Your task to perform on an android device: clear all cookies in the chrome app Image 0: 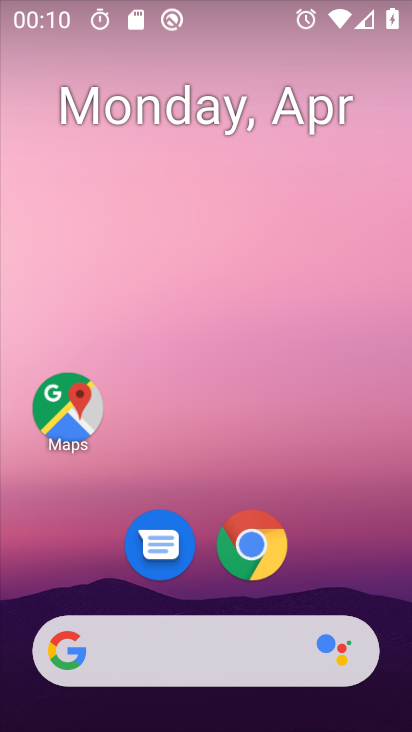
Step 0: drag from (302, 232) to (335, 196)
Your task to perform on an android device: clear all cookies in the chrome app Image 1: 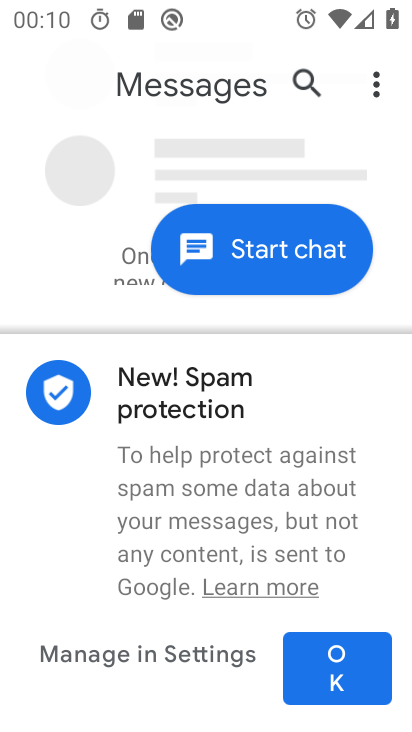
Step 1: press home button
Your task to perform on an android device: clear all cookies in the chrome app Image 2: 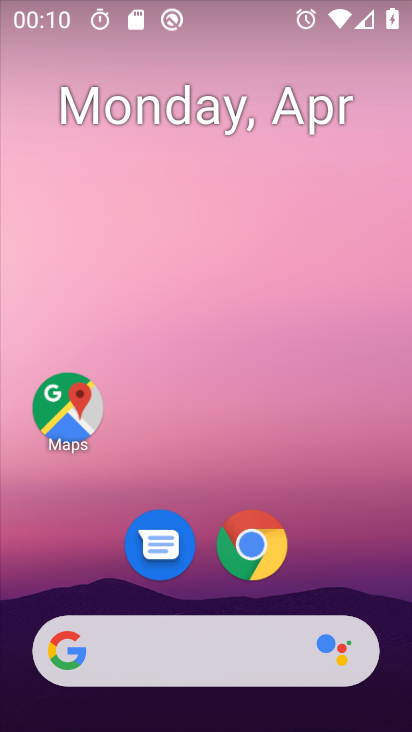
Step 2: drag from (338, 547) to (359, 199)
Your task to perform on an android device: clear all cookies in the chrome app Image 3: 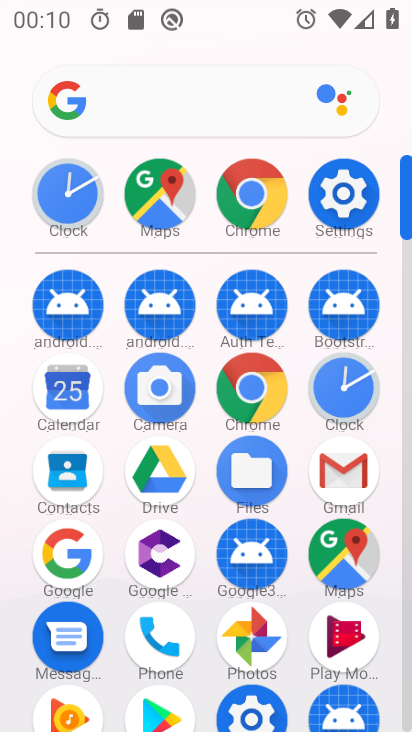
Step 3: click (238, 191)
Your task to perform on an android device: clear all cookies in the chrome app Image 4: 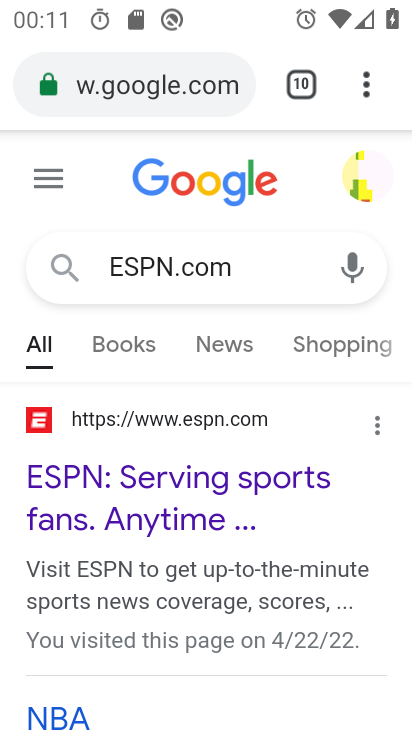
Step 4: click (349, 85)
Your task to perform on an android device: clear all cookies in the chrome app Image 5: 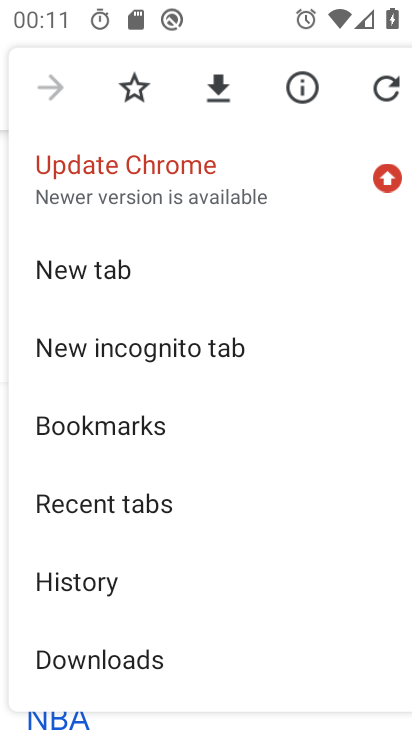
Step 5: drag from (189, 624) to (244, 241)
Your task to perform on an android device: clear all cookies in the chrome app Image 6: 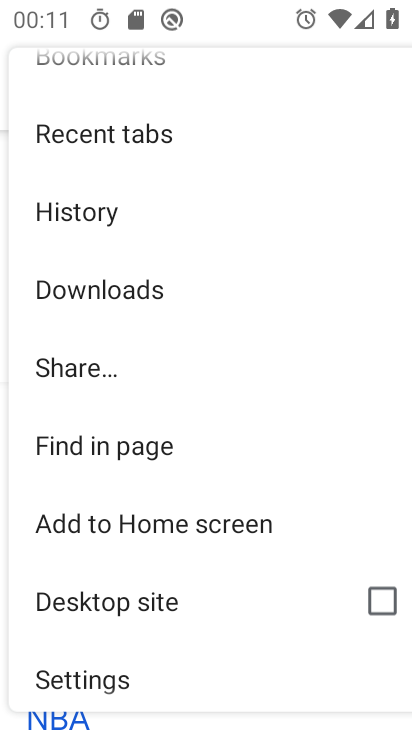
Step 6: click (125, 681)
Your task to perform on an android device: clear all cookies in the chrome app Image 7: 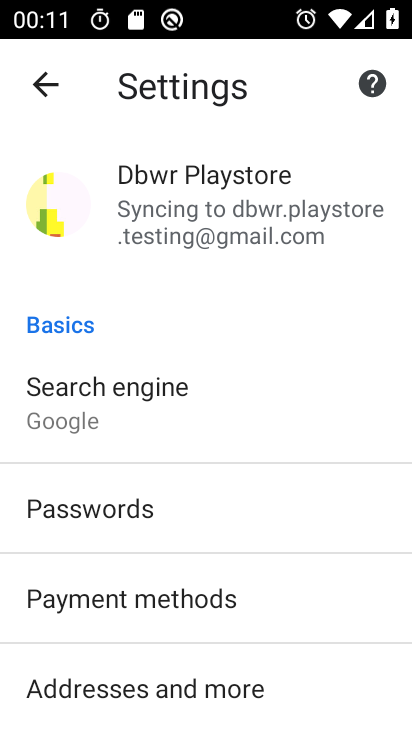
Step 7: drag from (212, 671) to (248, 280)
Your task to perform on an android device: clear all cookies in the chrome app Image 8: 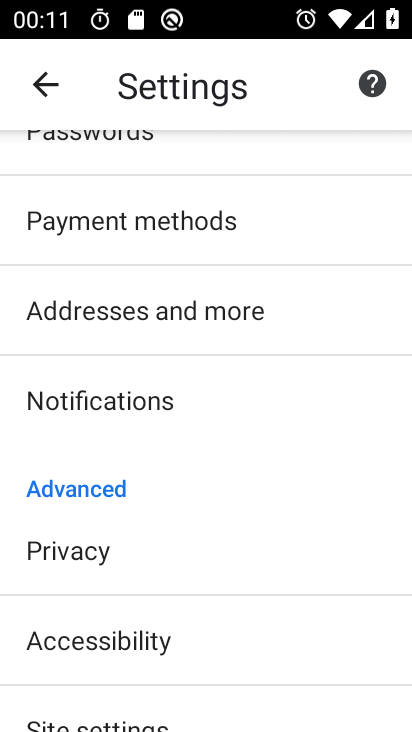
Step 8: drag from (186, 609) to (241, 333)
Your task to perform on an android device: clear all cookies in the chrome app Image 9: 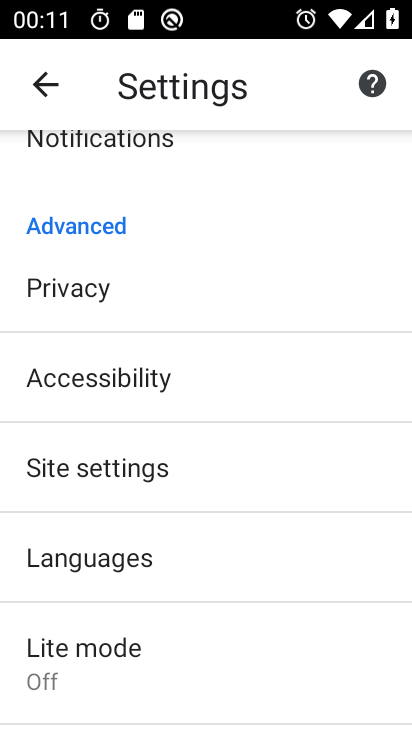
Step 9: click (134, 459)
Your task to perform on an android device: clear all cookies in the chrome app Image 10: 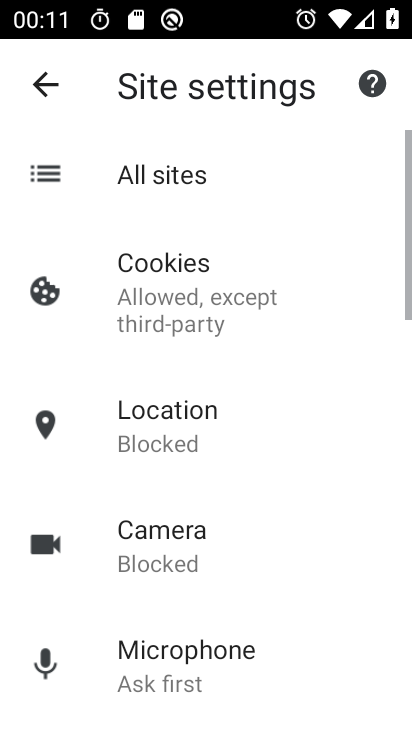
Step 10: click (261, 301)
Your task to perform on an android device: clear all cookies in the chrome app Image 11: 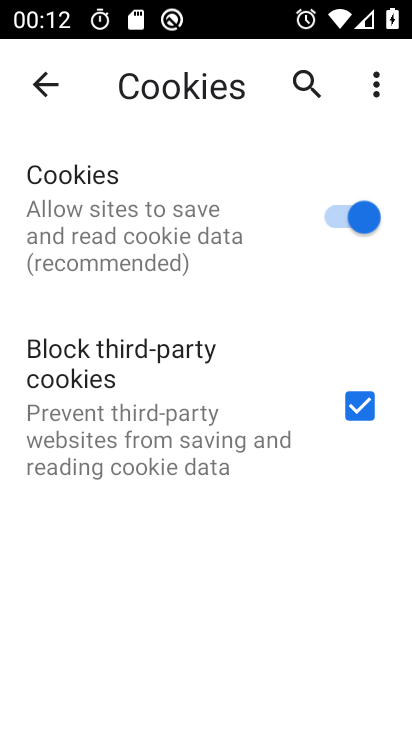
Step 11: task complete